Your task to perform on an android device: toggle wifi Image 0: 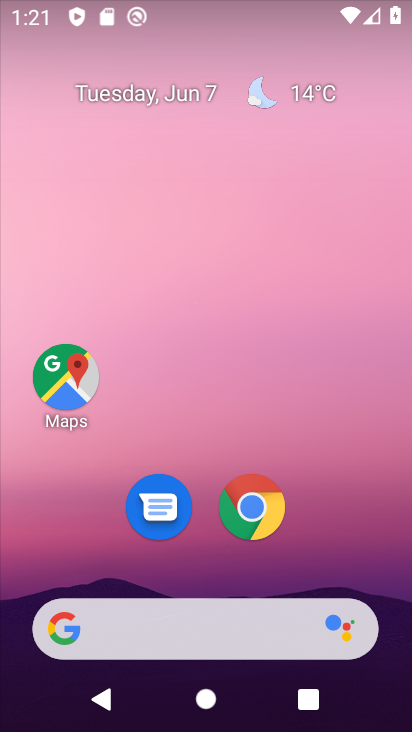
Step 0: drag from (94, 593) to (201, 72)
Your task to perform on an android device: toggle wifi Image 1: 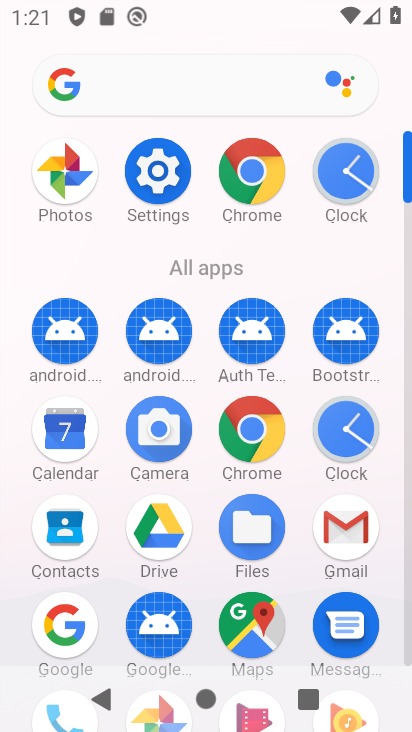
Step 1: drag from (151, 560) to (252, 244)
Your task to perform on an android device: toggle wifi Image 2: 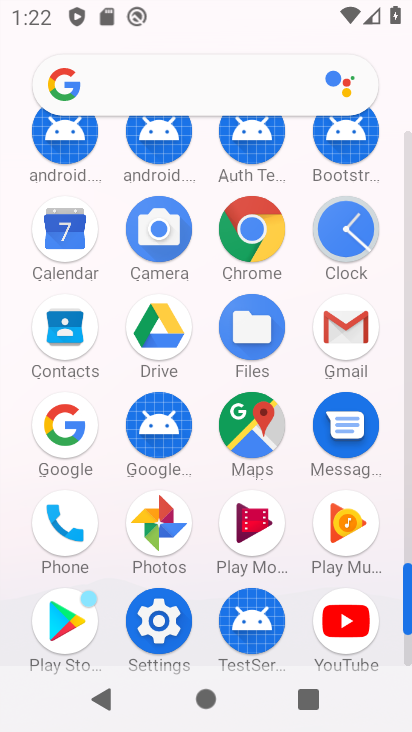
Step 2: click (145, 620)
Your task to perform on an android device: toggle wifi Image 3: 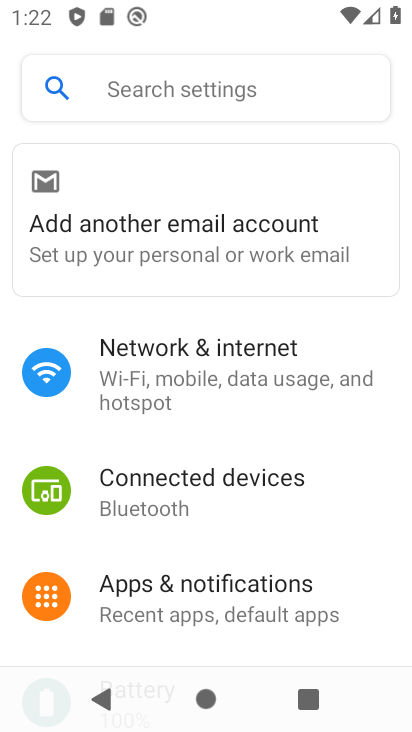
Step 3: click (314, 377)
Your task to perform on an android device: toggle wifi Image 4: 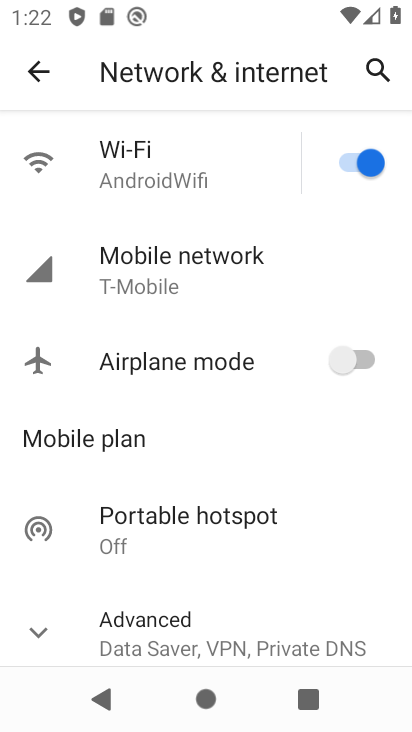
Step 4: click (344, 167)
Your task to perform on an android device: toggle wifi Image 5: 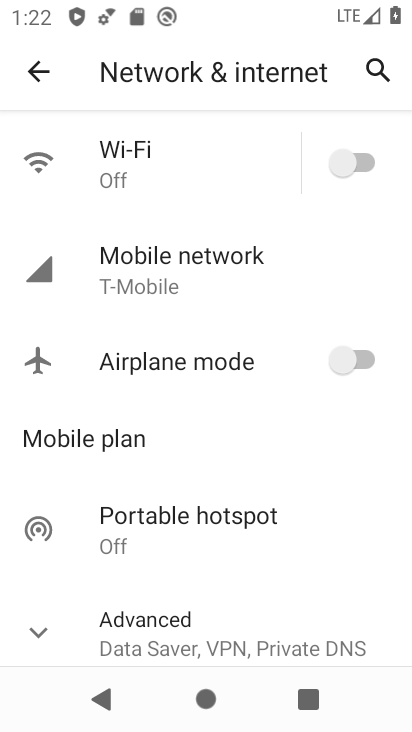
Step 5: task complete